Your task to perform on an android device: check data usage Image 0: 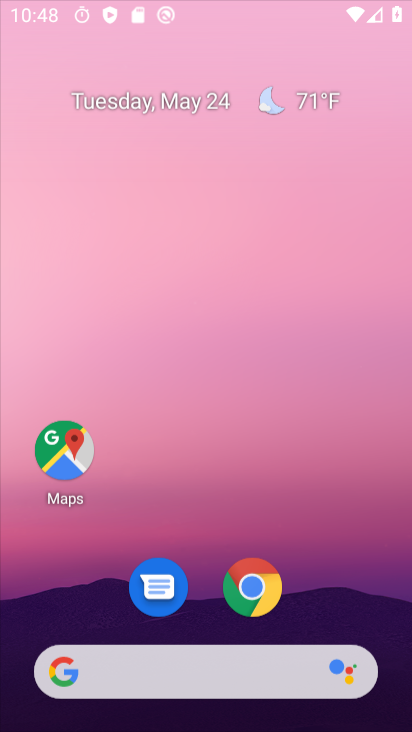
Step 0: drag from (376, 688) to (207, 32)
Your task to perform on an android device: check data usage Image 1: 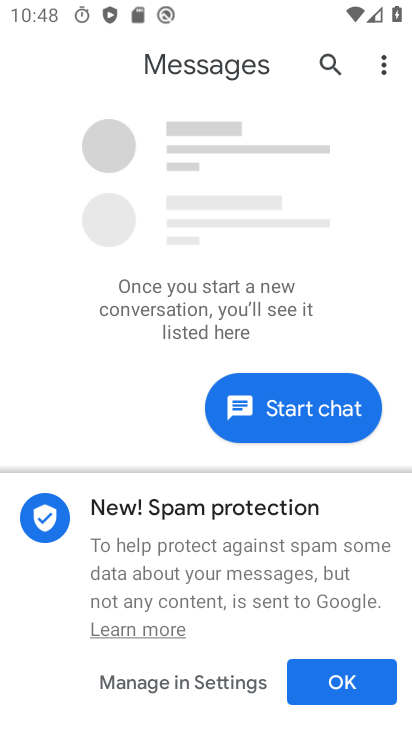
Step 1: press back button
Your task to perform on an android device: check data usage Image 2: 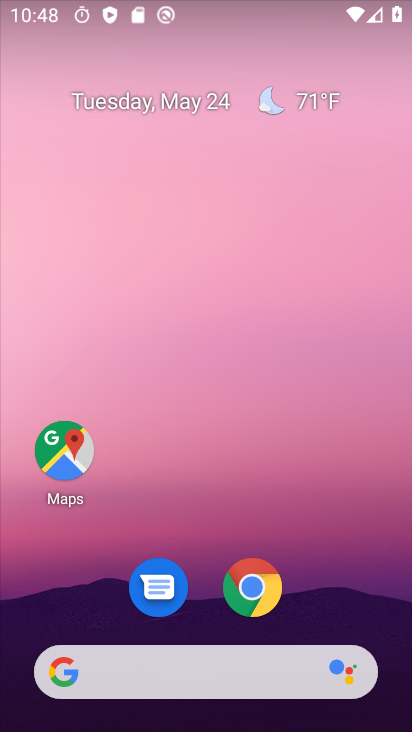
Step 2: drag from (346, 631) to (176, 151)
Your task to perform on an android device: check data usage Image 3: 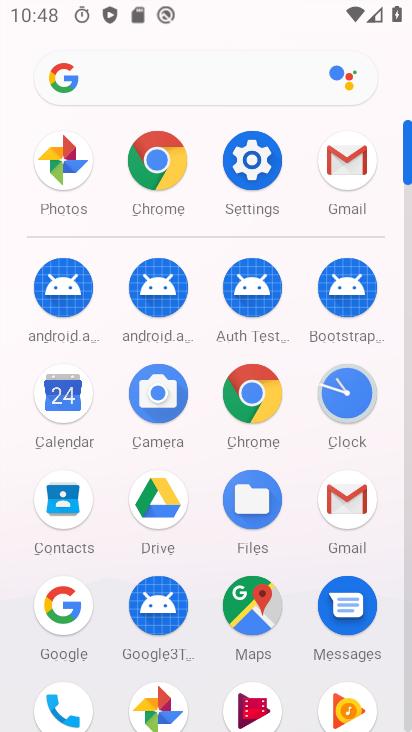
Step 3: click (252, 158)
Your task to perform on an android device: check data usage Image 4: 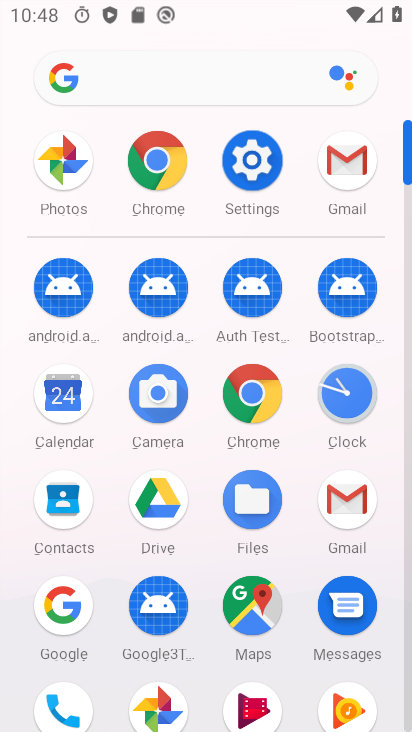
Step 4: click (254, 156)
Your task to perform on an android device: check data usage Image 5: 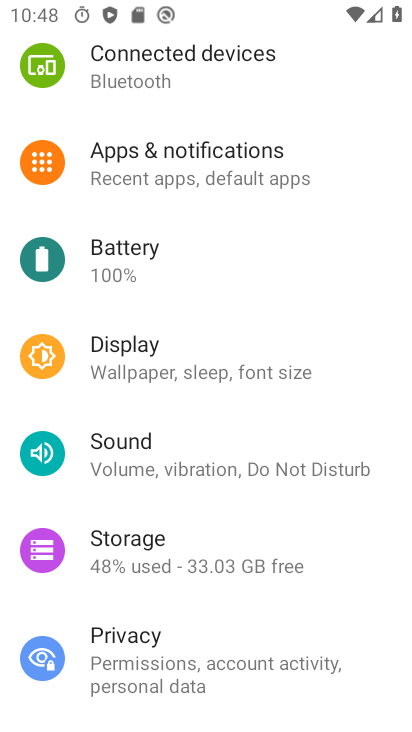
Step 5: click (254, 152)
Your task to perform on an android device: check data usage Image 6: 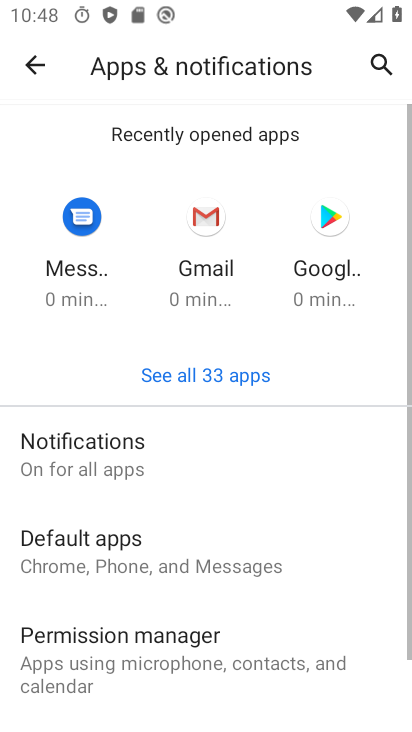
Step 6: click (31, 70)
Your task to perform on an android device: check data usage Image 7: 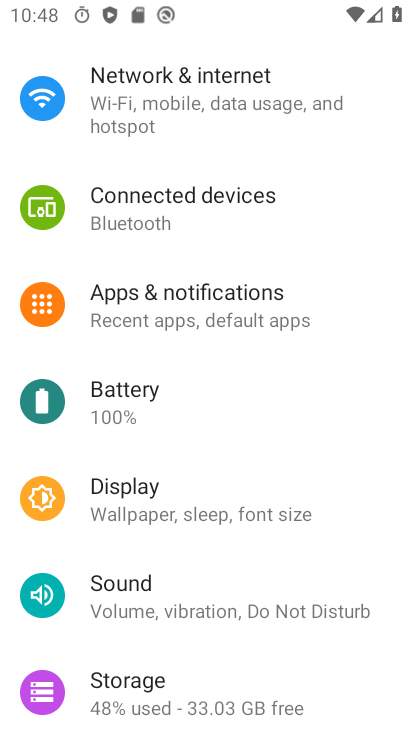
Step 7: click (200, 90)
Your task to perform on an android device: check data usage Image 8: 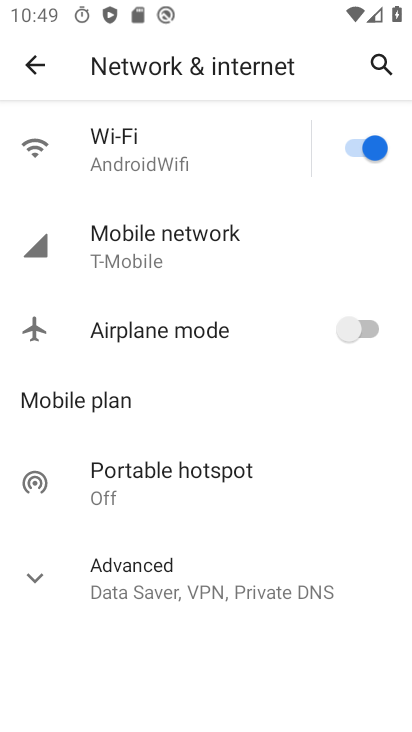
Step 8: drag from (177, 534) to (144, 174)
Your task to perform on an android device: check data usage Image 9: 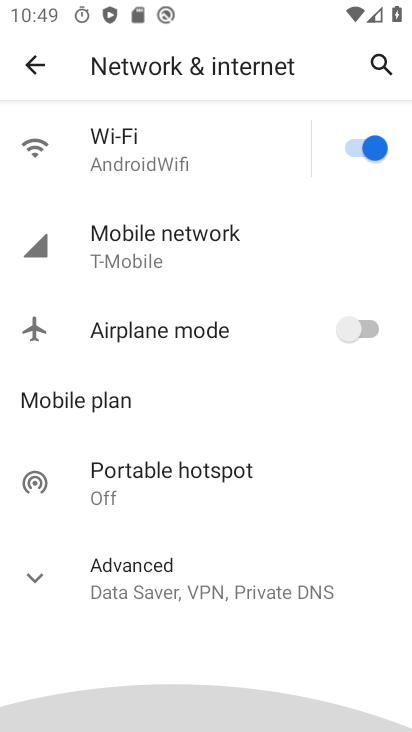
Step 9: drag from (187, 348) to (162, 51)
Your task to perform on an android device: check data usage Image 10: 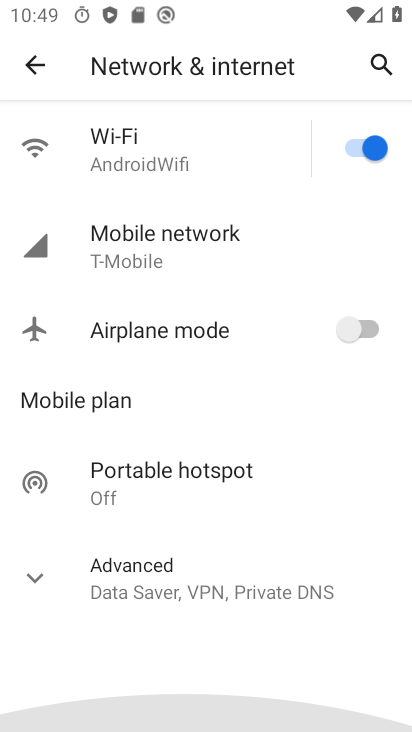
Step 10: drag from (189, 362) to (176, 113)
Your task to perform on an android device: check data usage Image 11: 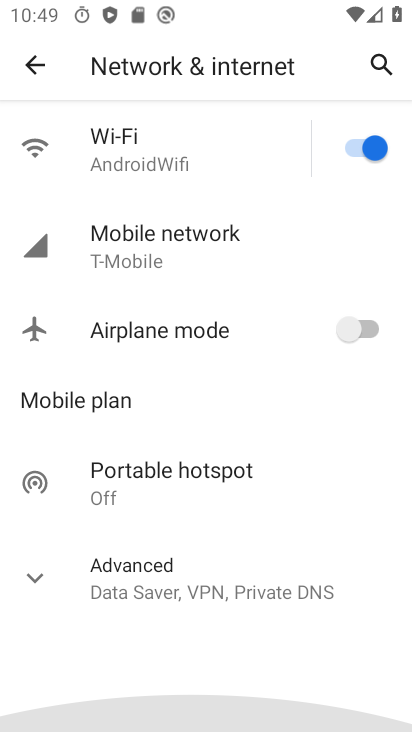
Step 11: drag from (180, 414) to (165, 103)
Your task to perform on an android device: check data usage Image 12: 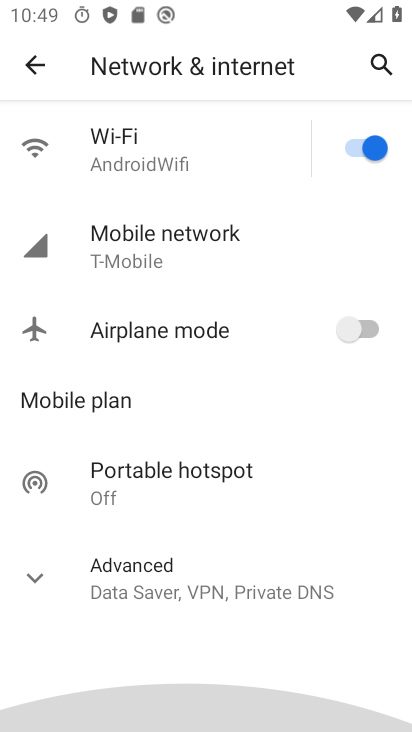
Step 12: drag from (207, 460) to (158, 196)
Your task to perform on an android device: check data usage Image 13: 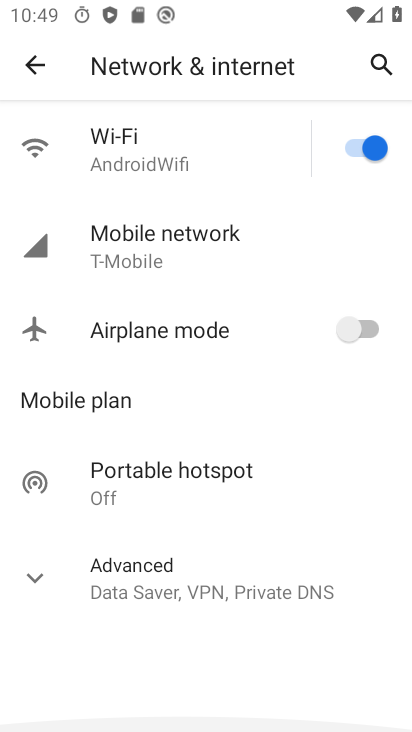
Step 13: click (148, 241)
Your task to perform on an android device: check data usage Image 14: 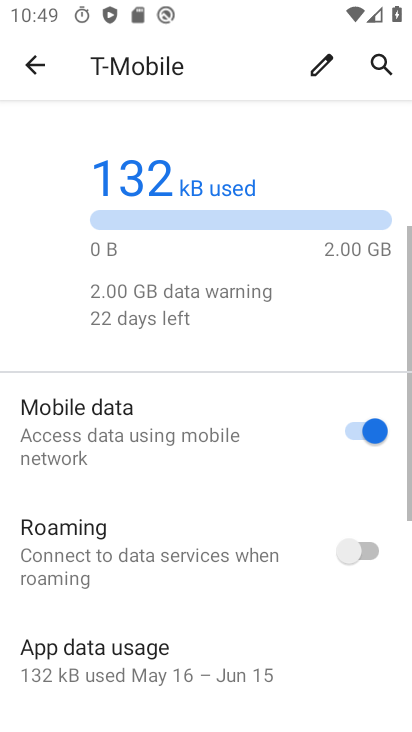
Step 14: task complete